Your task to perform on an android device: turn on improve location accuracy Image 0: 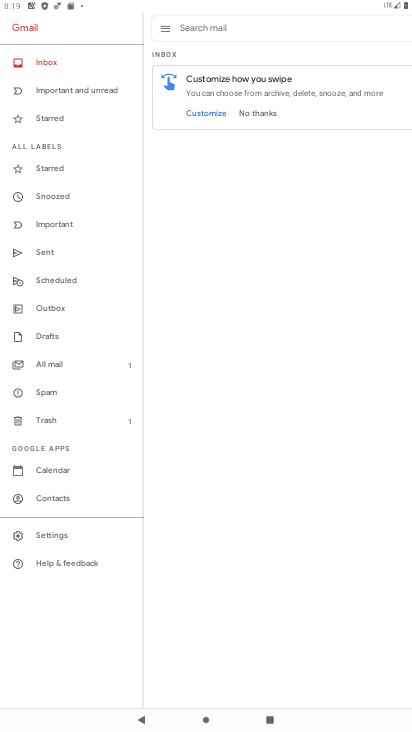
Step 0: press home button
Your task to perform on an android device: turn on improve location accuracy Image 1: 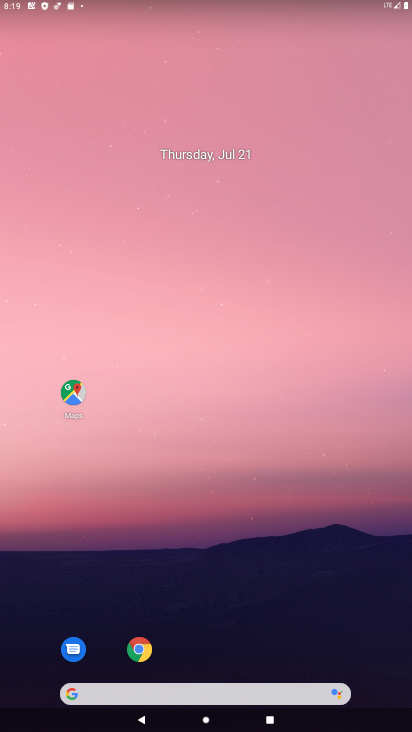
Step 1: drag from (215, 659) to (236, 83)
Your task to perform on an android device: turn on improve location accuracy Image 2: 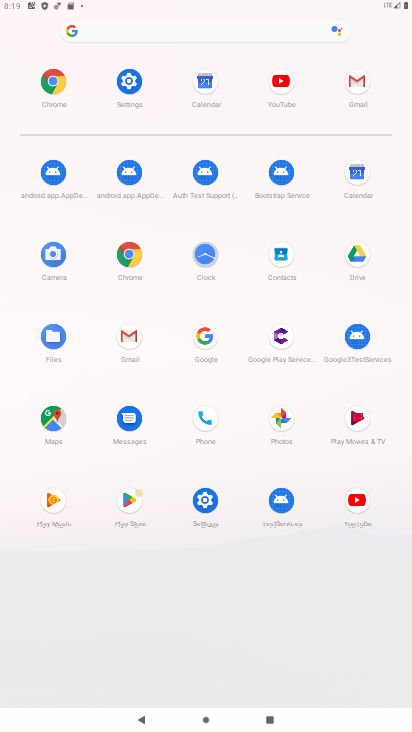
Step 2: click (215, 512)
Your task to perform on an android device: turn on improve location accuracy Image 3: 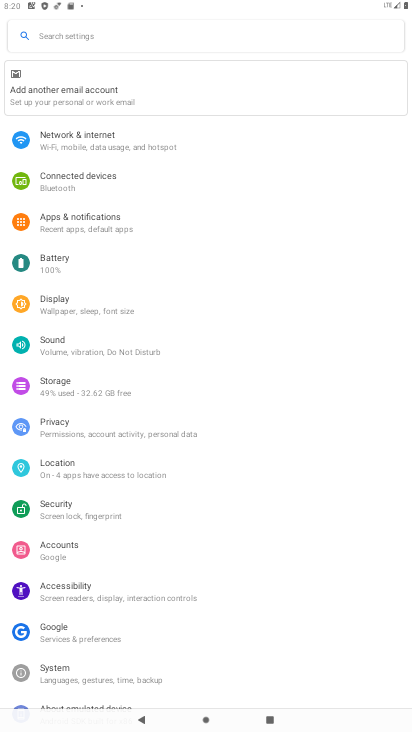
Step 3: click (95, 466)
Your task to perform on an android device: turn on improve location accuracy Image 4: 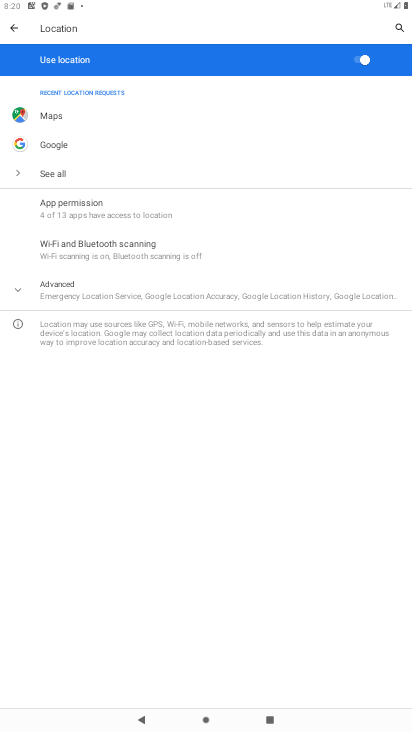
Step 4: click (137, 289)
Your task to perform on an android device: turn on improve location accuracy Image 5: 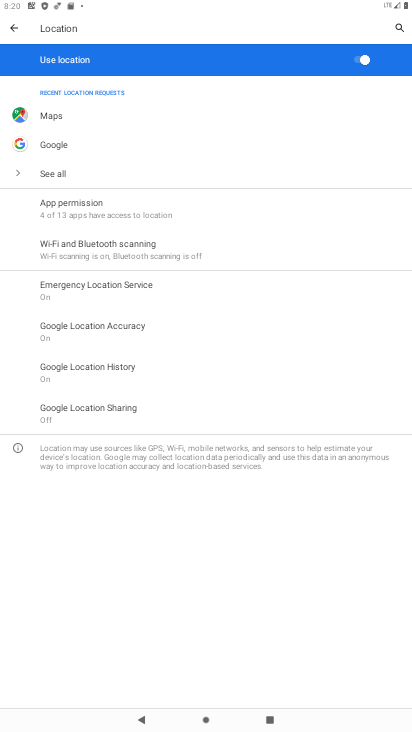
Step 5: click (123, 326)
Your task to perform on an android device: turn on improve location accuracy Image 6: 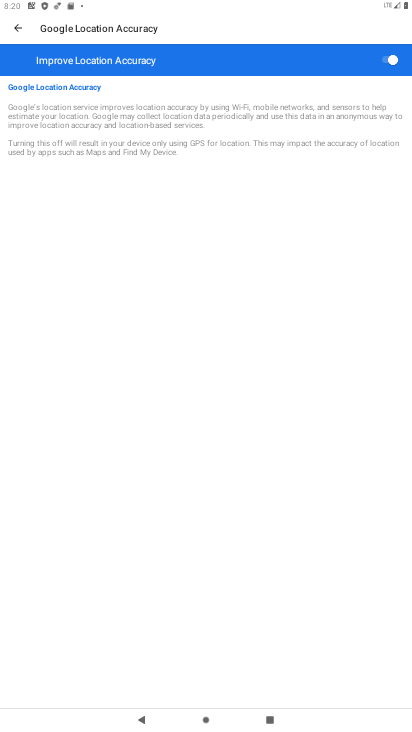
Step 6: task complete